Your task to perform on an android device: Open calendar and show me the first week of next month Image 0: 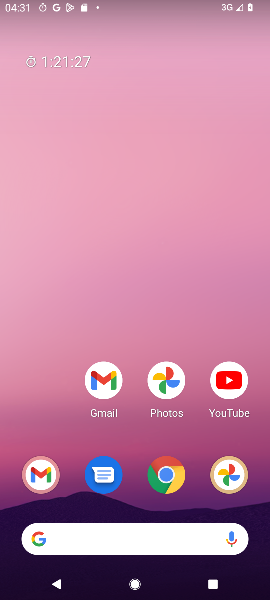
Step 0: press home button
Your task to perform on an android device: Open calendar and show me the first week of next month Image 1: 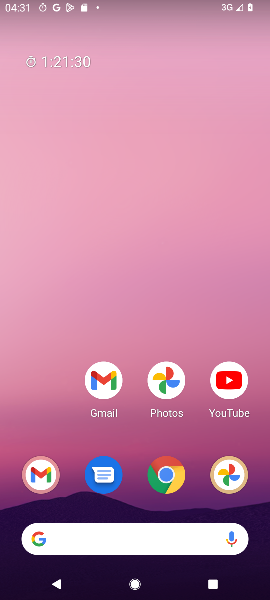
Step 1: drag from (56, 445) to (60, 210)
Your task to perform on an android device: Open calendar and show me the first week of next month Image 2: 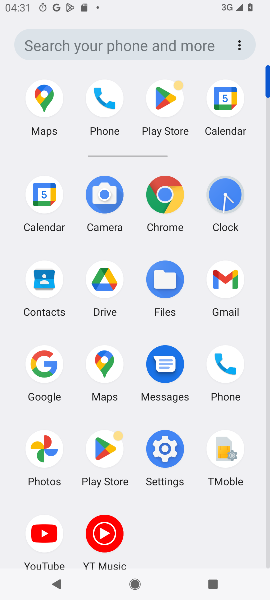
Step 2: click (46, 205)
Your task to perform on an android device: Open calendar and show me the first week of next month Image 3: 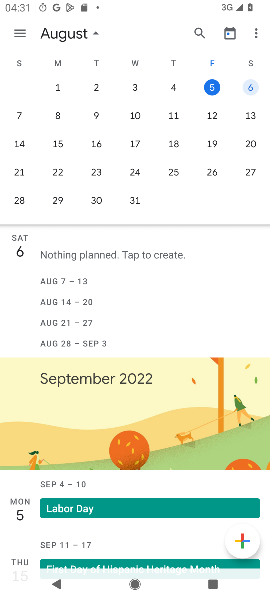
Step 3: drag from (253, 102) to (48, 97)
Your task to perform on an android device: Open calendar and show me the first week of next month Image 4: 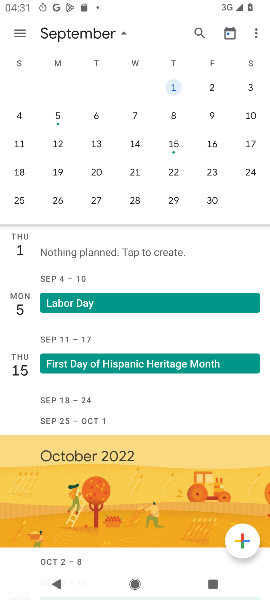
Step 4: click (171, 85)
Your task to perform on an android device: Open calendar and show me the first week of next month Image 5: 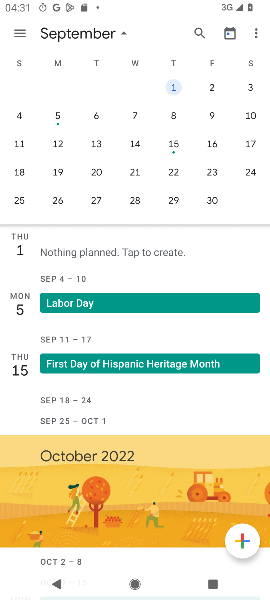
Step 5: task complete